Your task to perform on an android device: View the shopping cart on amazon. Image 0: 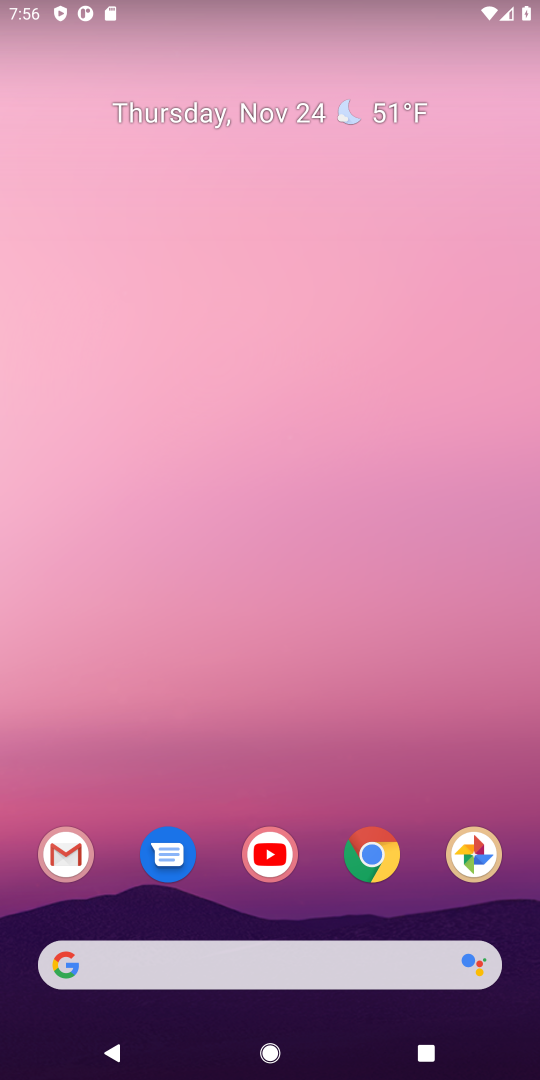
Step 0: click (373, 856)
Your task to perform on an android device: View the shopping cart on amazon. Image 1: 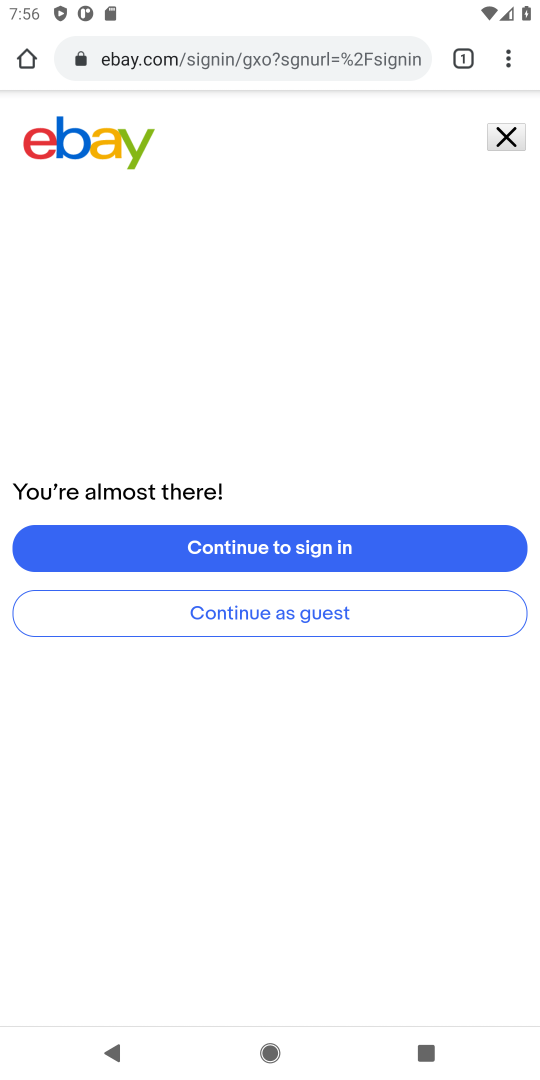
Step 1: click (235, 62)
Your task to perform on an android device: View the shopping cart on amazon. Image 2: 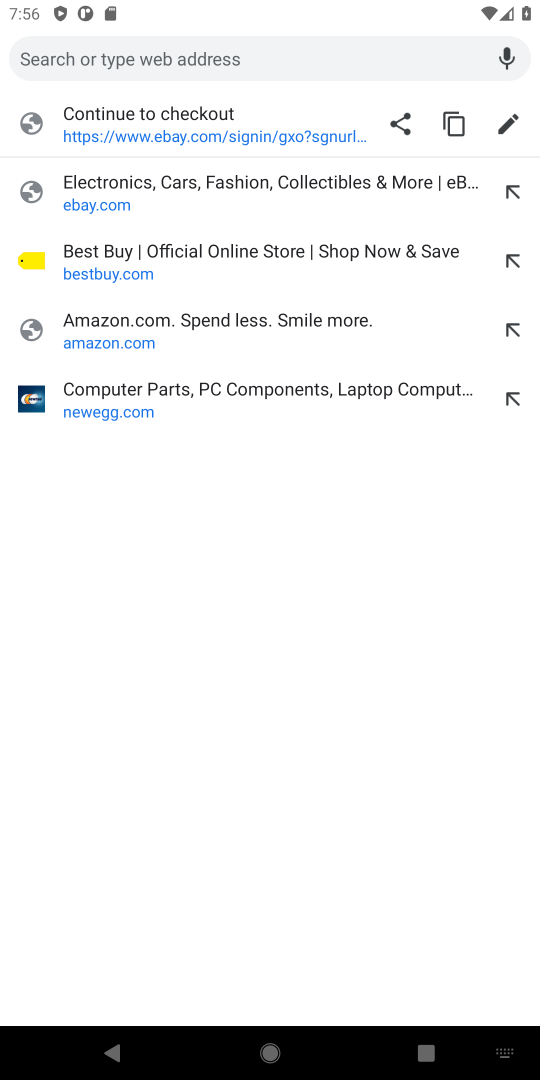
Step 2: click (82, 332)
Your task to perform on an android device: View the shopping cart on amazon. Image 3: 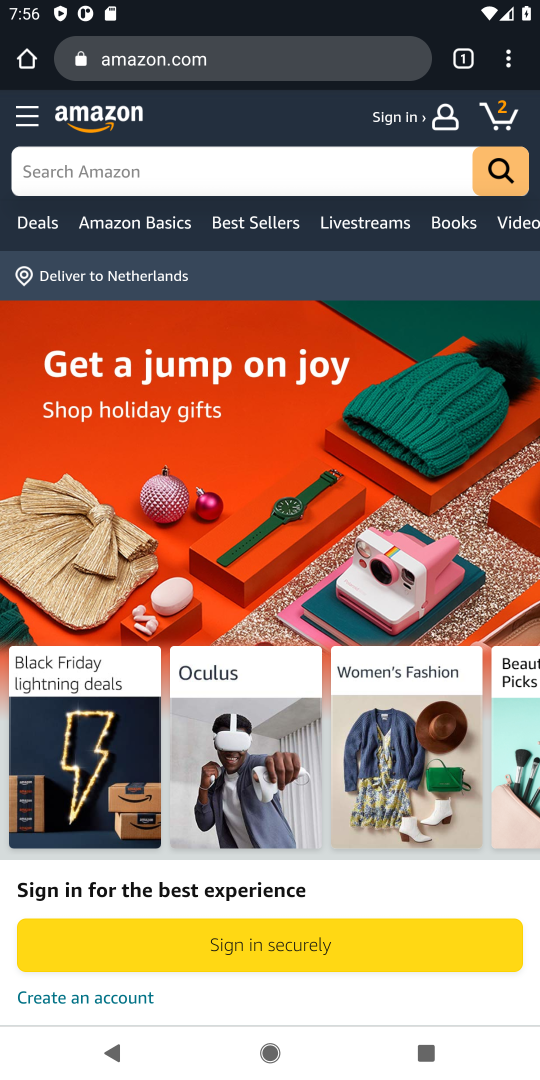
Step 3: click (497, 122)
Your task to perform on an android device: View the shopping cart on amazon. Image 4: 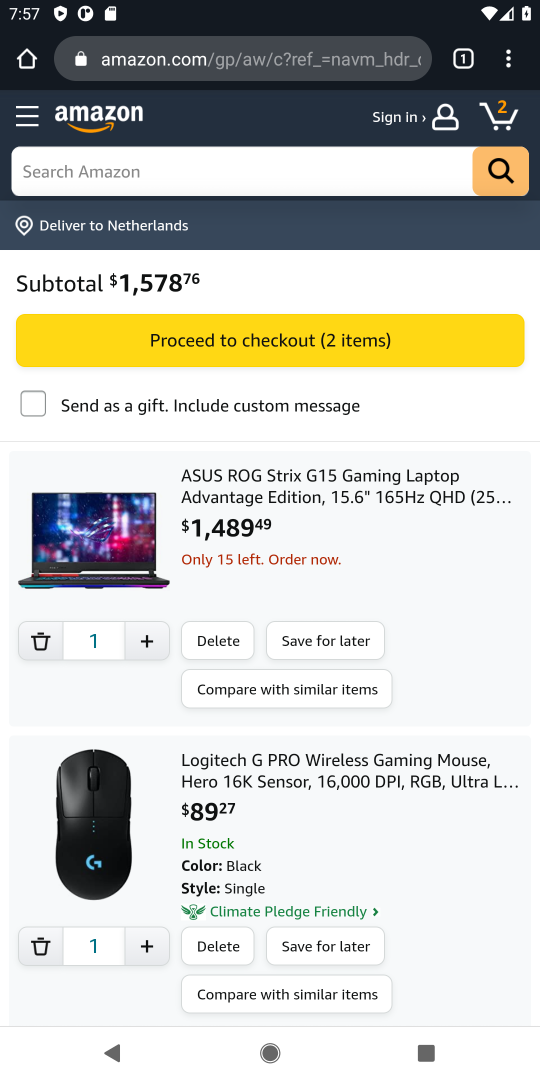
Step 4: task complete